Your task to perform on an android device: turn on priority inbox in the gmail app Image 0: 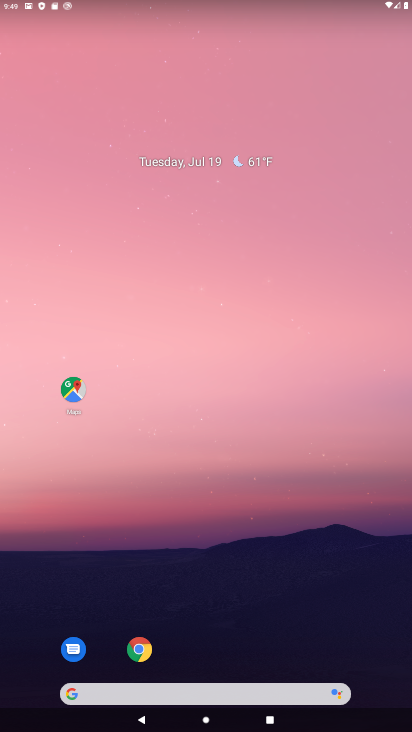
Step 0: drag from (309, 107) to (294, 13)
Your task to perform on an android device: turn on priority inbox in the gmail app Image 1: 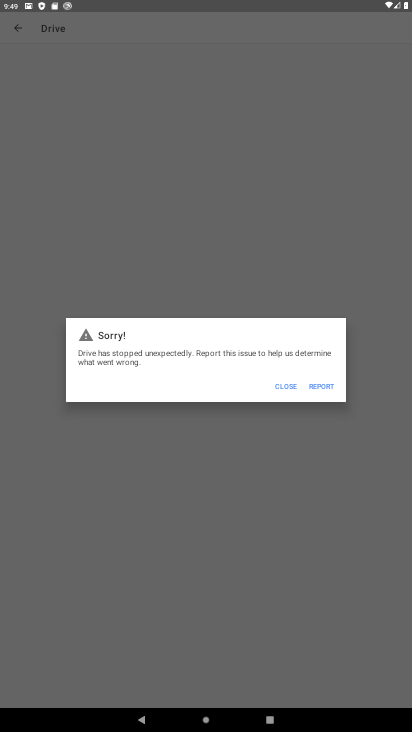
Step 1: press home button
Your task to perform on an android device: turn on priority inbox in the gmail app Image 2: 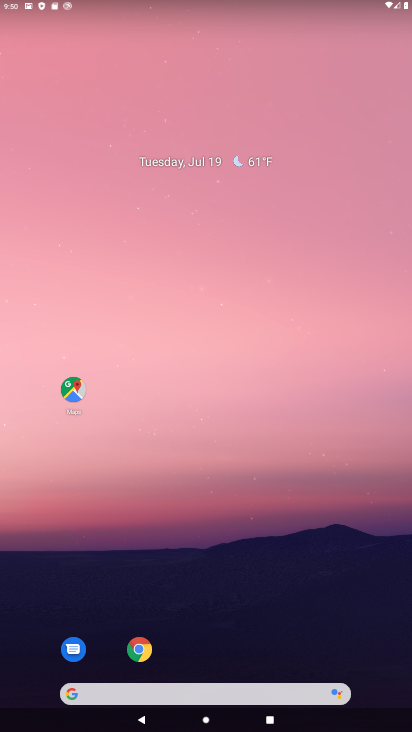
Step 2: drag from (332, 654) to (146, 8)
Your task to perform on an android device: turn on priority inbox in the gmail app Image 3: 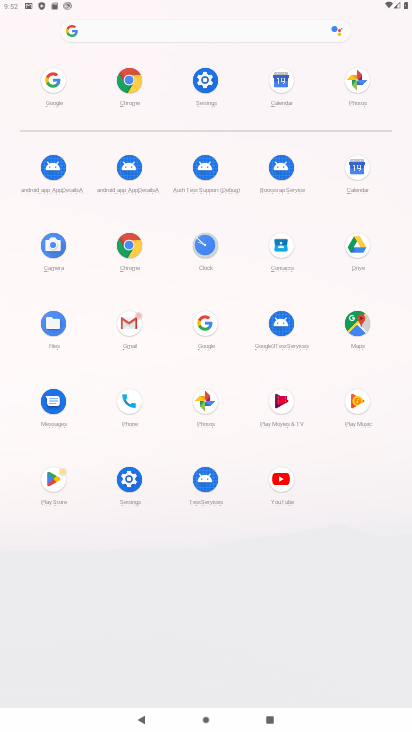
Step 3: click (128, 320)
Your task to perform on an android device: turn on priority inbox in the gmail app Image 4: 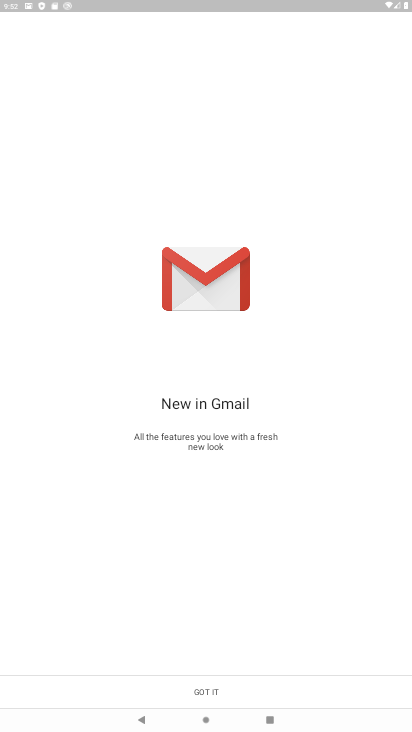
Step 4: click (201, 696)
Your task to perform on an android device: turn on priority inbox in the gmail app Image 5: 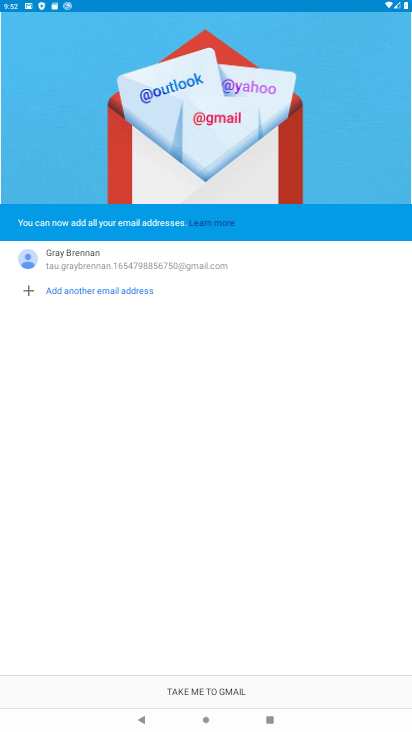
Step 5: click (210, 692)
Your task to perform on an android device: turn on priority inbox in the gmail app Image 6: 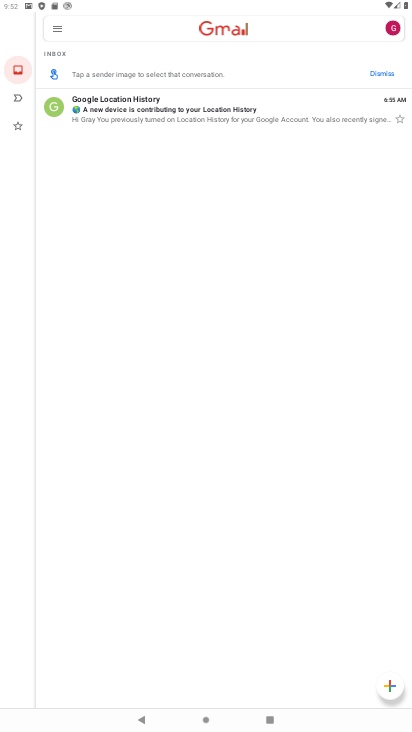
Step 6: click (50, 34)
Your task to perform on an android device: turn on priority inbox in the gmail app Image 7: 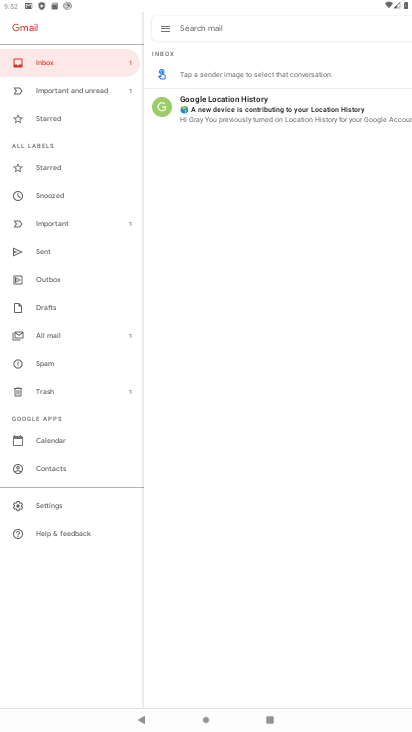
Step 7: click (50, 505)
Your task to perform on an android device: turn on priority inbox in the gmail app Image 8: 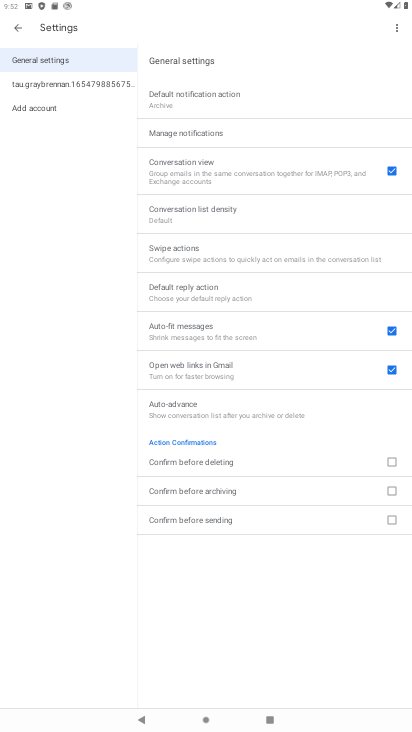
Step 8: click (101, 87)
Your task to perform on an android device: turn on priority inbox in the gmail app Image 9: 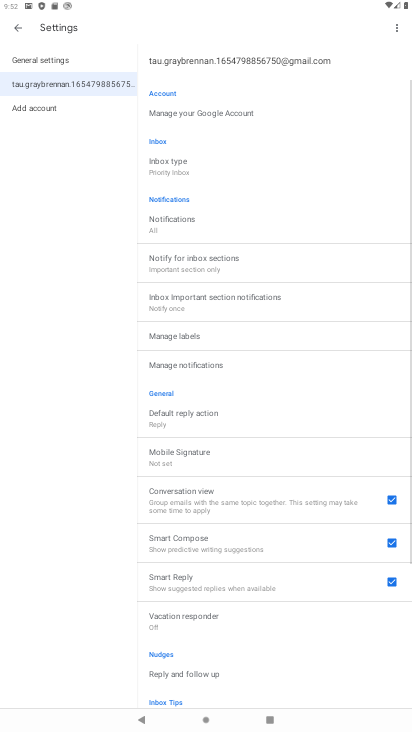
Step 9: click (182, 166)
Your task to perform on an android device: turn on priority inbox in the gmail app Image 10: 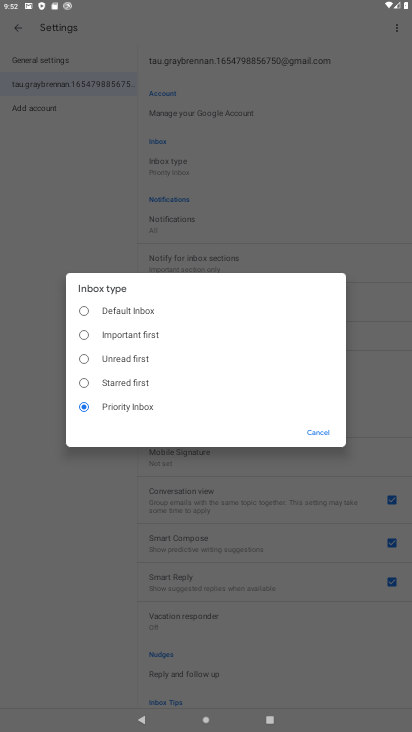
Step 10: task complete